Your task to perform on an android device: manage bookmarks in the chrome app Image 0: 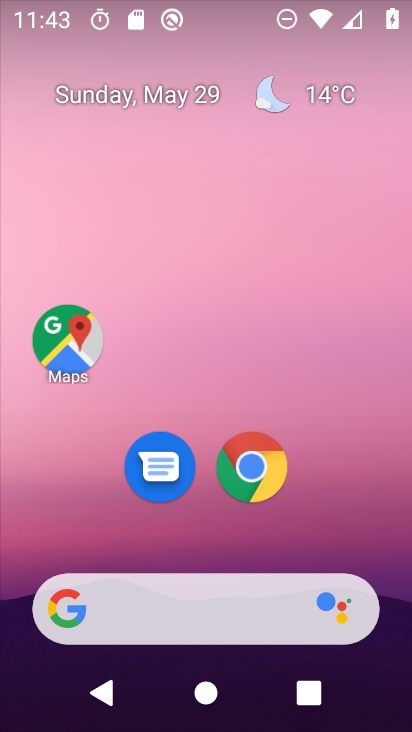
Step 0: click (250, 488)
Your task to perform on an android device: manage bookmarks in the chrome app Image 1: 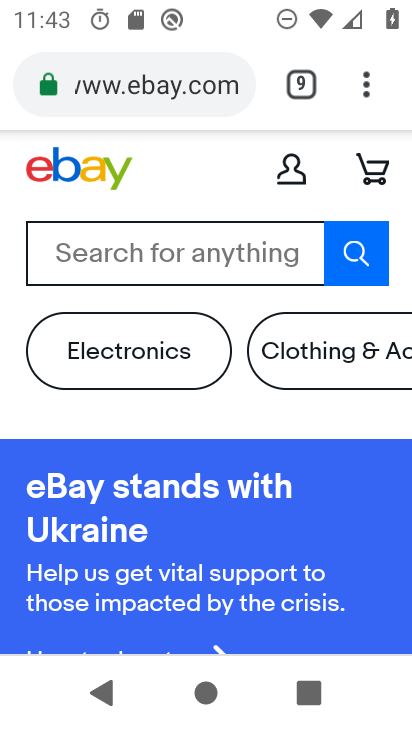
Step 1: drag from (366, 88) to (165, 330)
Your task to perform on an android device: manage bookmarks in the chrome app Image 2: 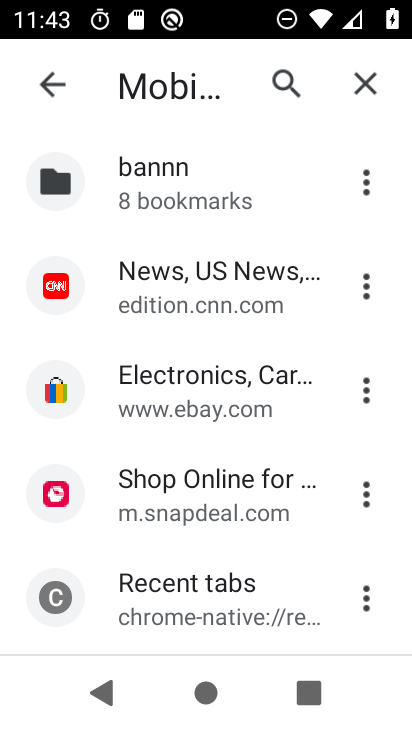
Step 2: drag from (262, 504) to (276, 224)
Your task to perform on an android device: manage bookmarks in the chrome app Image 3: 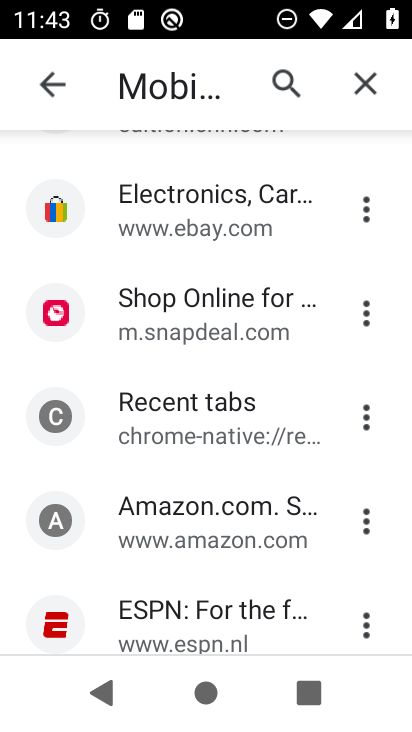
Step 3: click (367, 415)
Your task to perform on an android device: manage bookmarks in the chrome app Image 4: 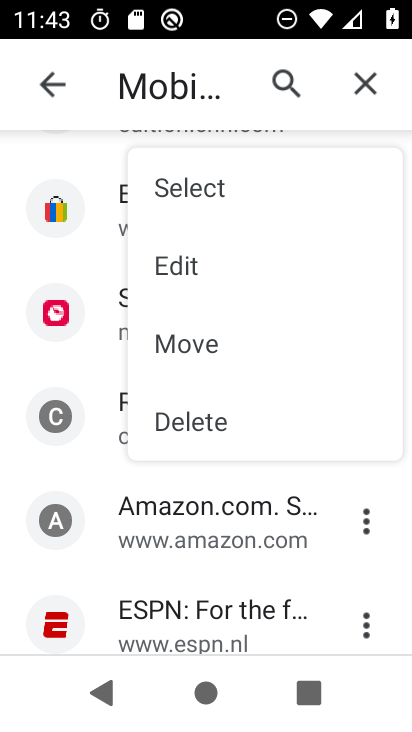
Step 4: click (217, 405)
Your task to perform on an android device: manage bookmarks in the chrome app Image 5: 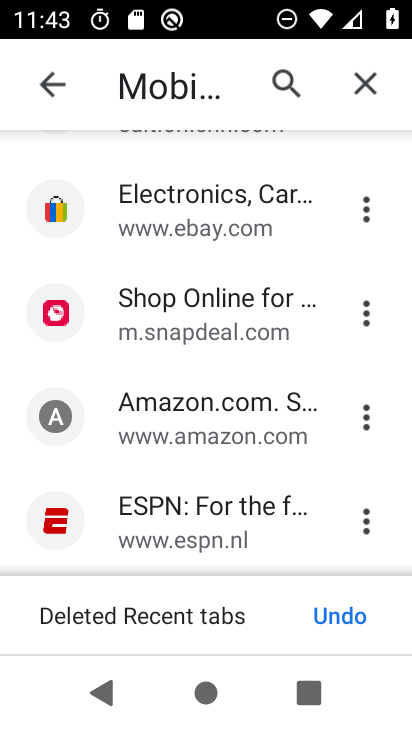
Step 5: click (370, 216)
Your task to perform on an android device: manage bookmarks in the chrome app Image 6: 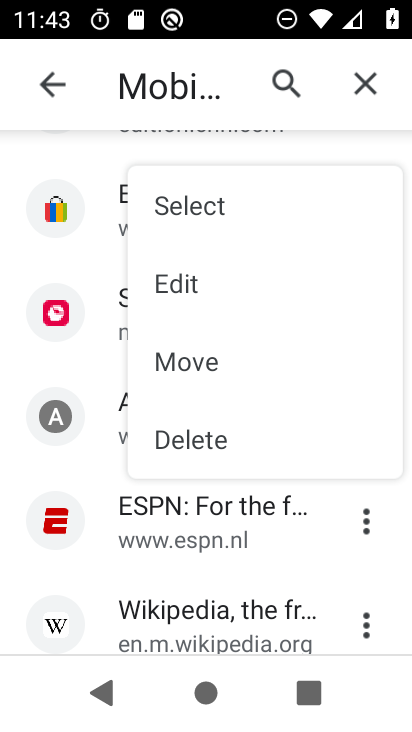
Step 6: click (209, 431)
Your task to perform on an android device: manage bookmarks in the chrome app Image 7: 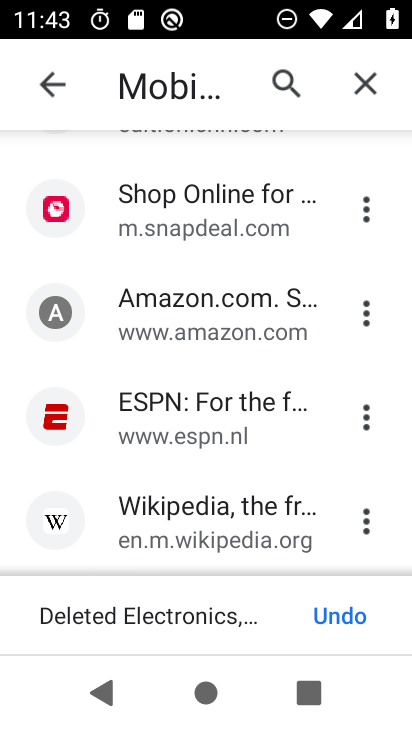
Step 7: task complete